Your task to perform on an android device: toggle airplane mode Image 0: 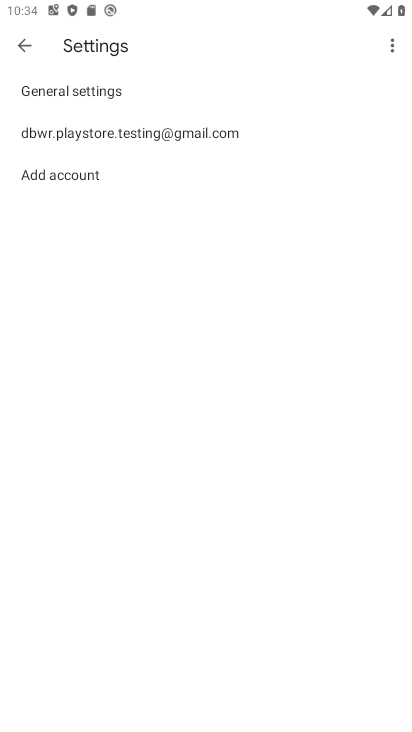
Step 0: press home button
Your task to perform on an android device: toggle airplane mode Image 1: 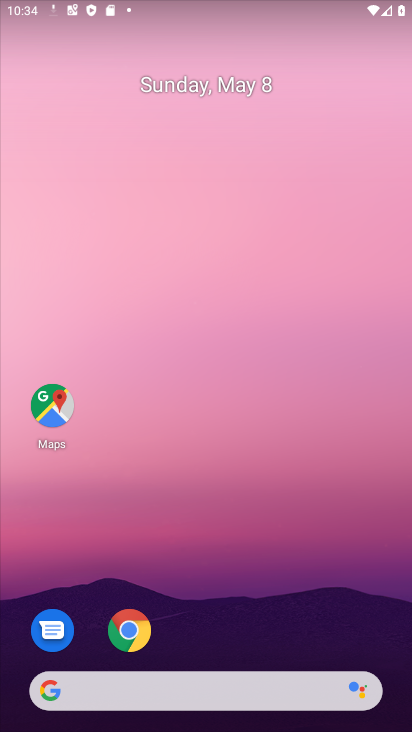
Step 1: drag from (189, 655) to (225, 452)
Your task to perform on an android device: toggle airplane mode Image 2: 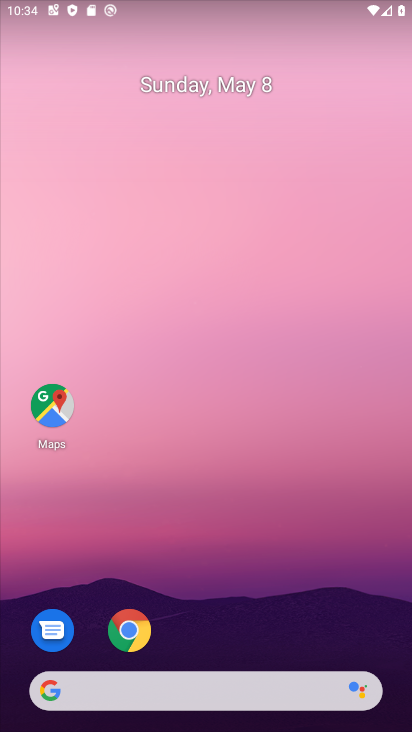
Step 2: drag from (225, 657) to (199, 65)
Your task to perform on an android device: toggle airplane mode Image 3: 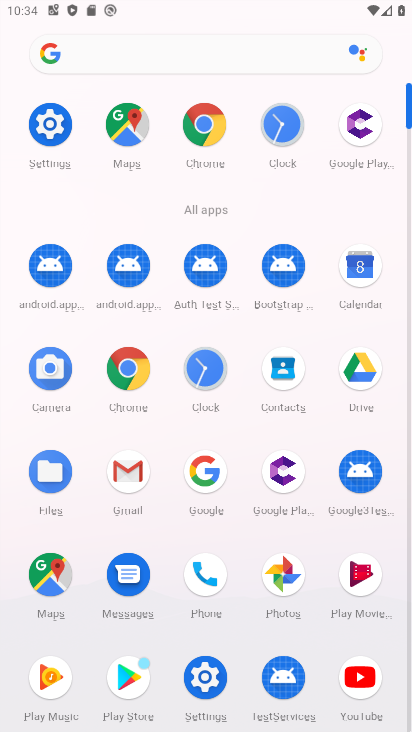
Step 3: click (213, 678)
Your task to perform on an android device: toggle airplane mode Image 4: 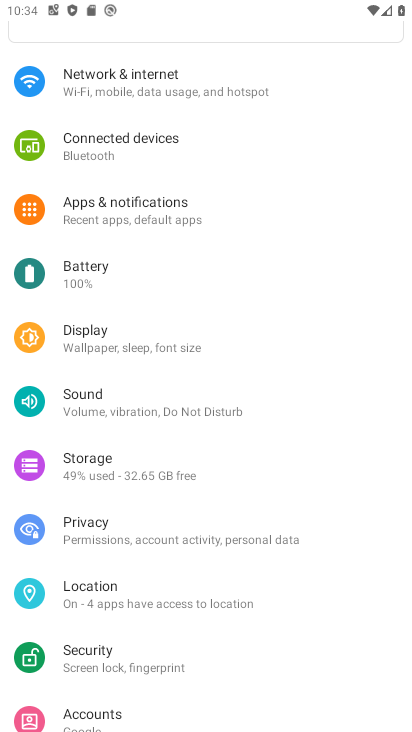
Step 4: click (270, 97)
Your task to perform on an android device: toggle airplane mode Image 5: 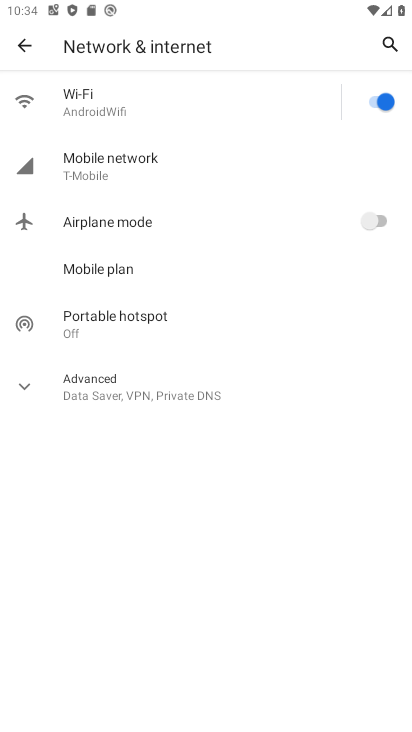
Step 5: click (397, 224)
Your task to perform on an android device: toggle airplane mode Image 6: 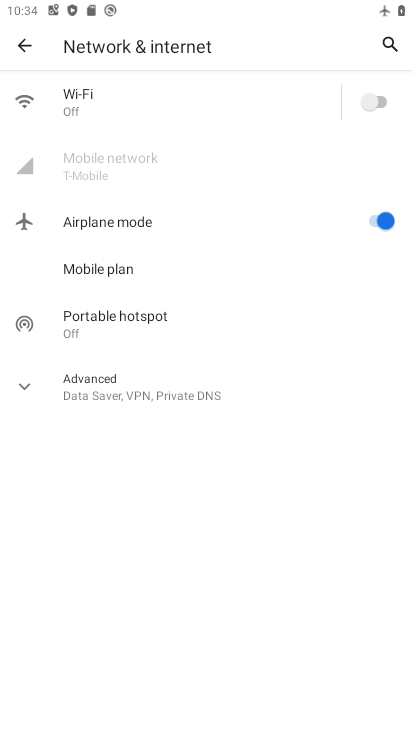
Step 6: task complete